Your task to perform on an android device: change the upload size in google photos Image 0: 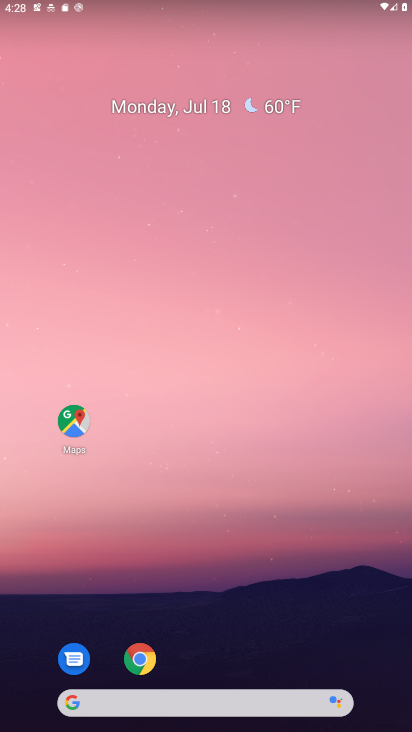
Step 0: drag from (257, 636) to (288, 208)
Your task to perform on an android device: change the upload size in google photos Image 1: 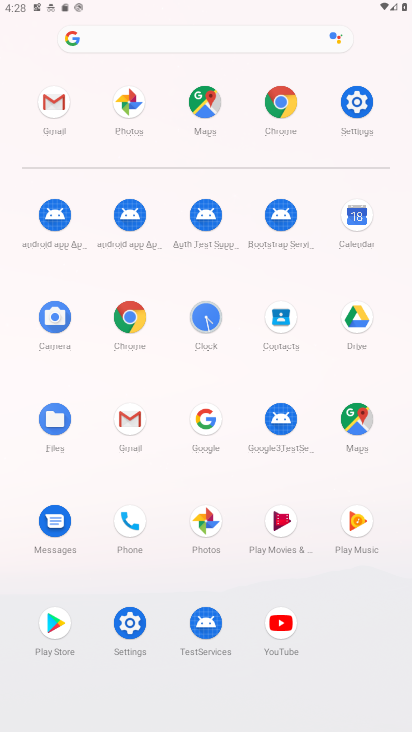
Step 1: click (213, 524)
Your task to perform on an android device: change the upload size in google photos Image 2: 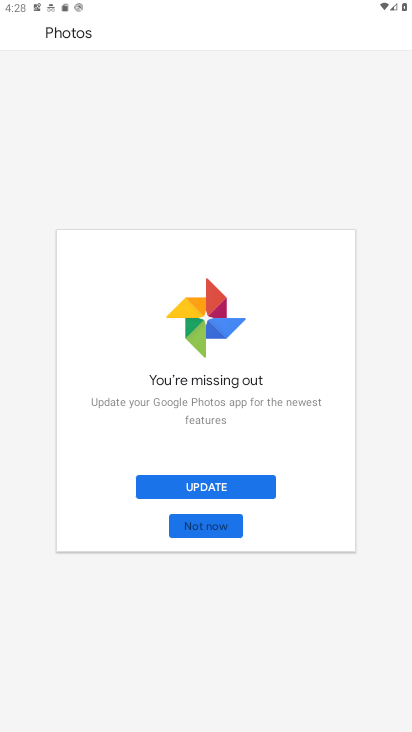
Step 2: task complete